Your task to perform on an android device: Open network settings Image 0: 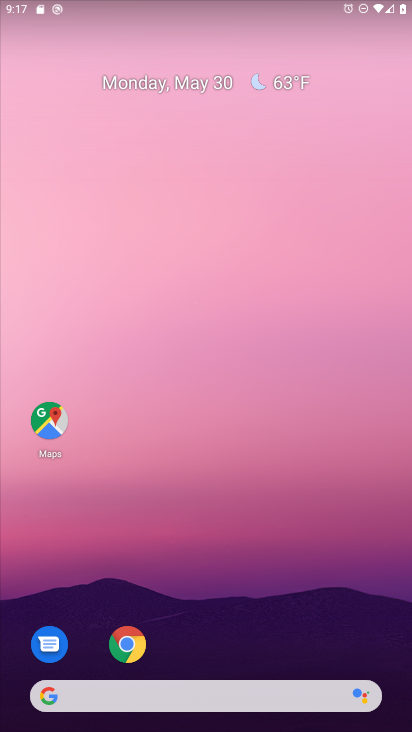
Step 0: drag from (257, 662) to (223, 49)
Your task to perform on an android device: Open network settings Image 1: 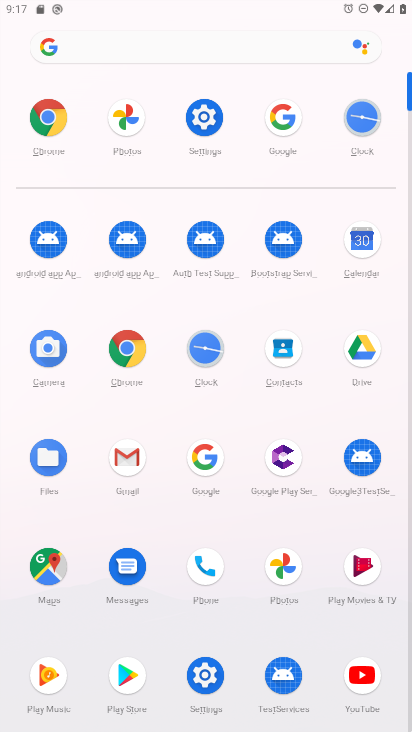
Step 1: click (202, 115)
Your task to perform on an android device: Open network settings Image 2: 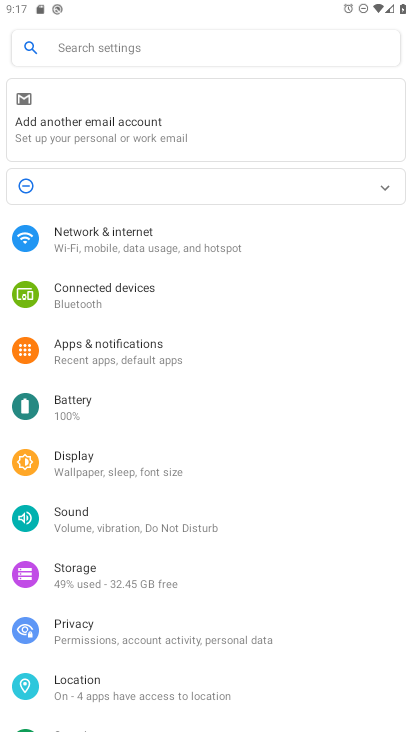
Step 2: click (181, 241)
Your task to perform on an android device: Open network settings Image 3: 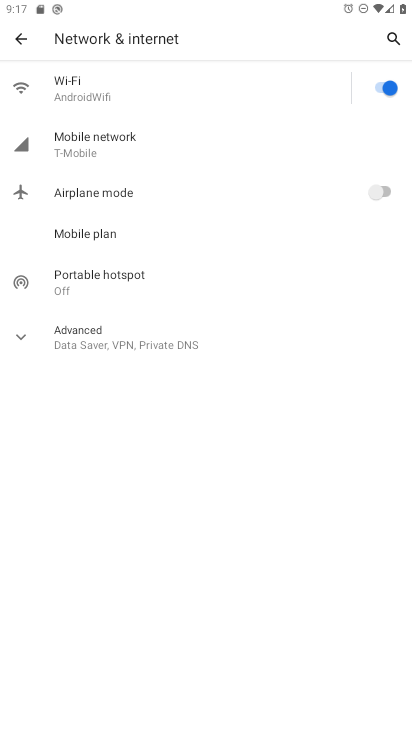
Step 3: click (101, 146)
Your task to perform on an android device: Open network settings Image 4: 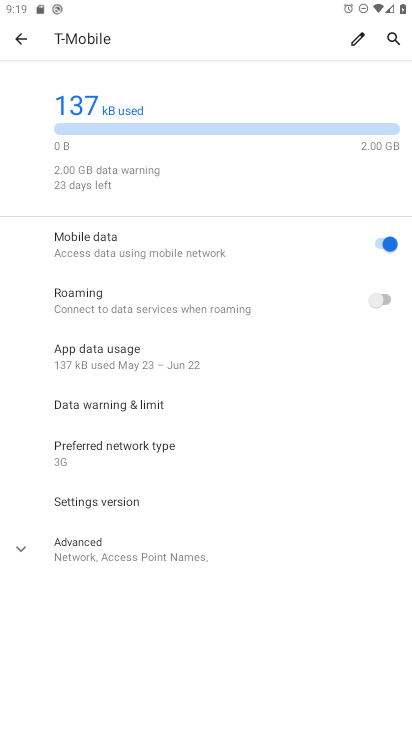
Step 4: task complete